Your task to perform on an android device: turn off javascript in the chrome app Image 0: 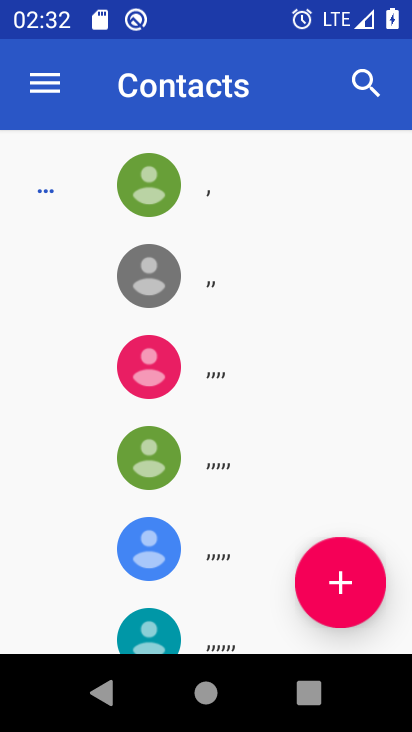
Step 0: press home button
Your task to perform on an android device: turn off javascript in the chrome app Image 1: 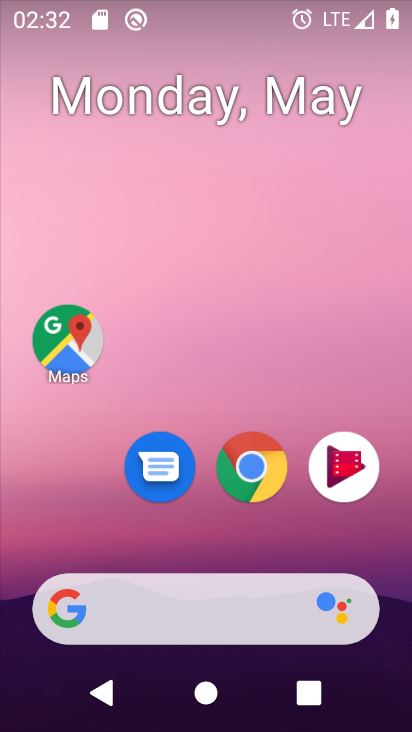
Step 1: drag from (184, 485) to (221, 216)
Your task to perform on an android device: turn off javascript in the chrome app Image 2: 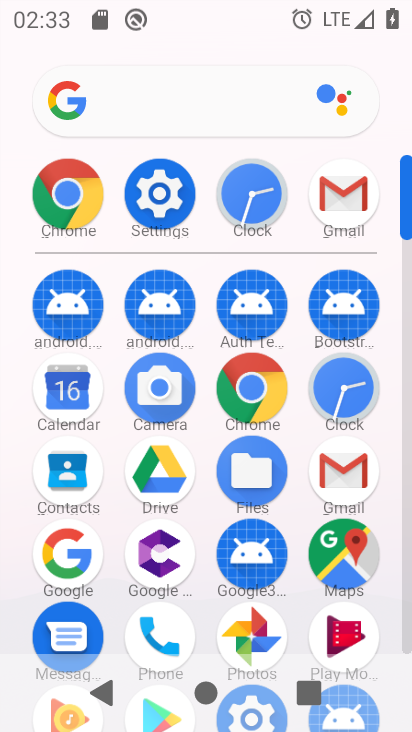
Step 2: click (74, 182)
Your task to perform on an android device: turn off javascript in the chrome app Image 3: 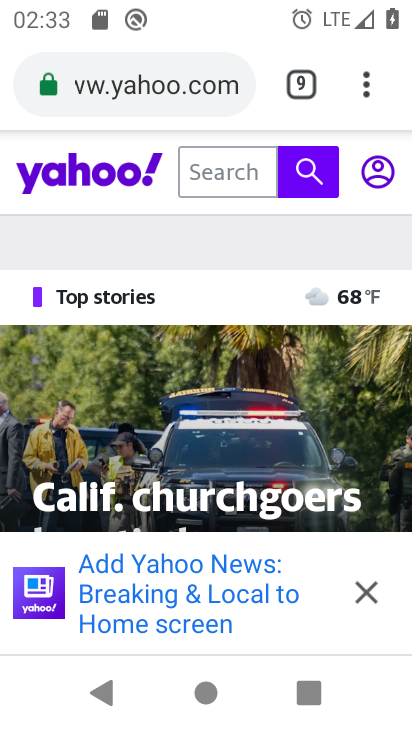
Step 3: click (356, 79)
Your task to perform on an android device: turn off javascript in the chrome app Image 4: 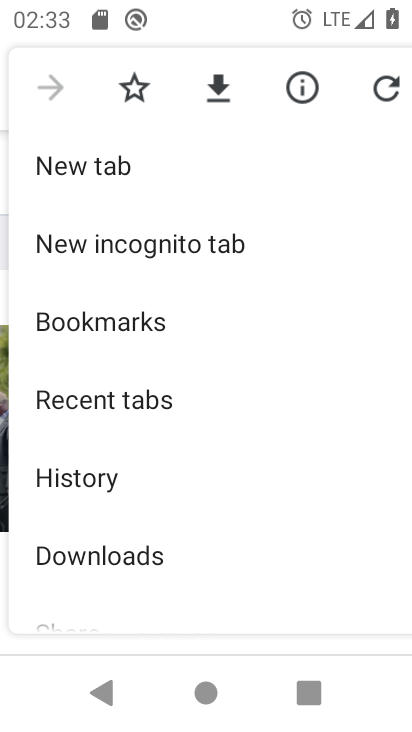
Step 4: drag from (197, 506) to (264, 237)
Your task to perform on an android device: turn off javascript in the chrome app Image 5: 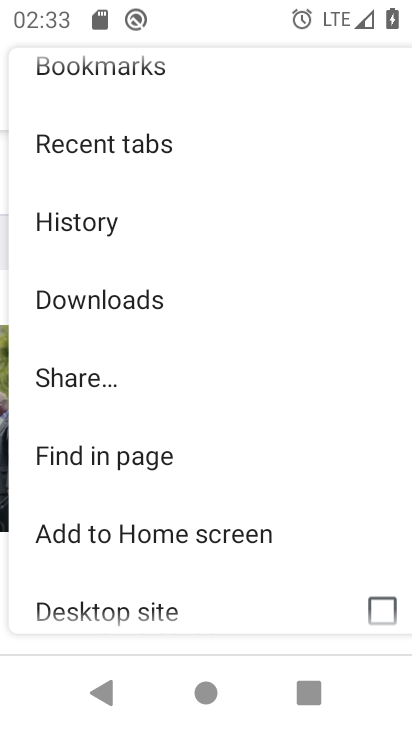
Step 5: drag from (177, 517) to (248, 250)
Your task to perform on an android device: turn off javascript in the chrome app Image 6: 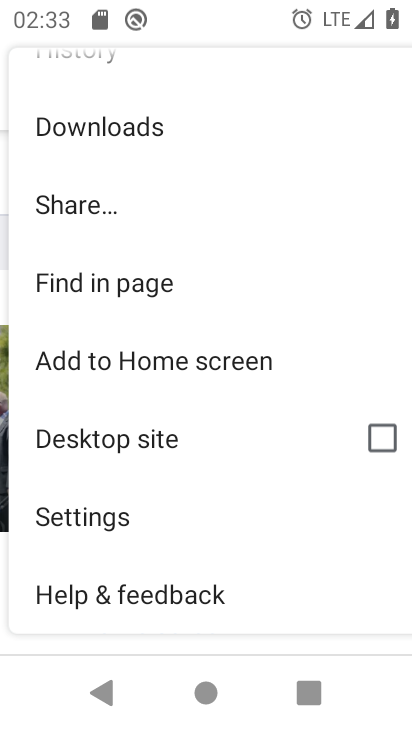
Step 6: click (90, 519)
Your task to perform on an android device: turn off javascript in the chrome app Image 7: 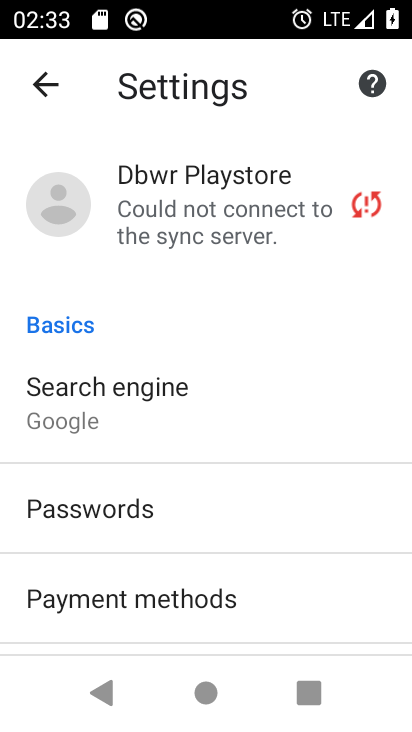
Step 7: drag from (162, 584) to (286, 233)
Your task to perform on an android device: turn off javascript in the chrome app Image 8: 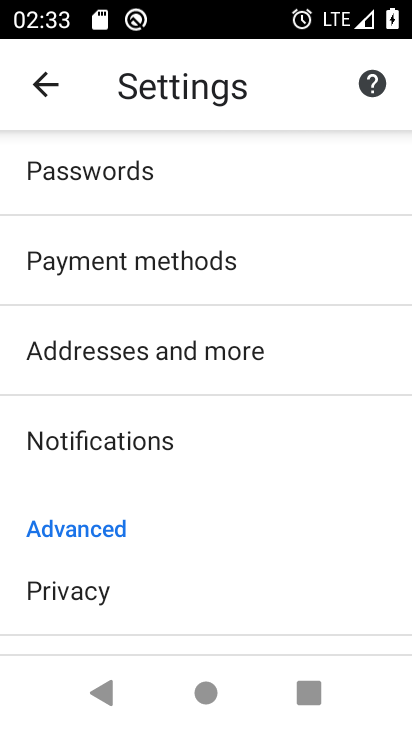
Step 8: drag from (204, 538) to (282, 220)
Your task to perform on an android device: turn off javascript in the chrome app Image 9: 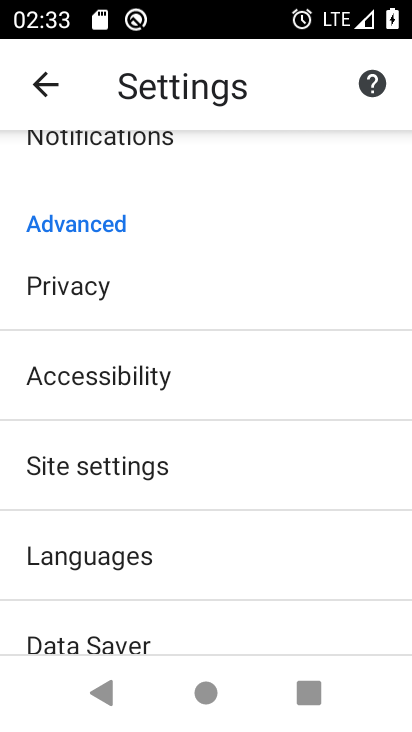
Step 9: drag from (180, 579) to (250, 319)
Your task to perform on an android device: turn off javascript in the chrome app Image 10: 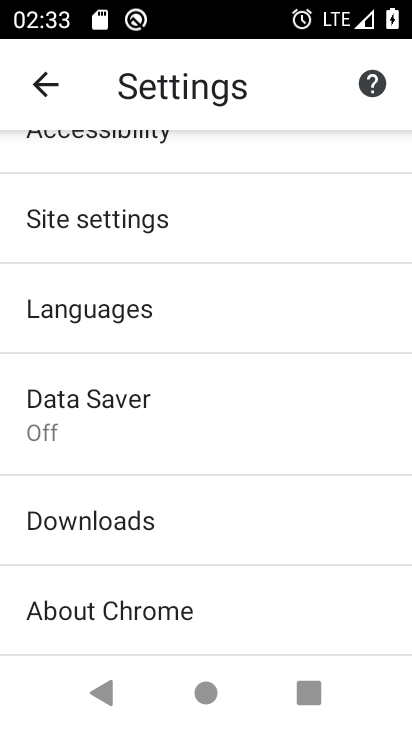
Step 10: click (117, 213)
Your task to perform on an android device: turn off javascript in the chrome app Image 11: 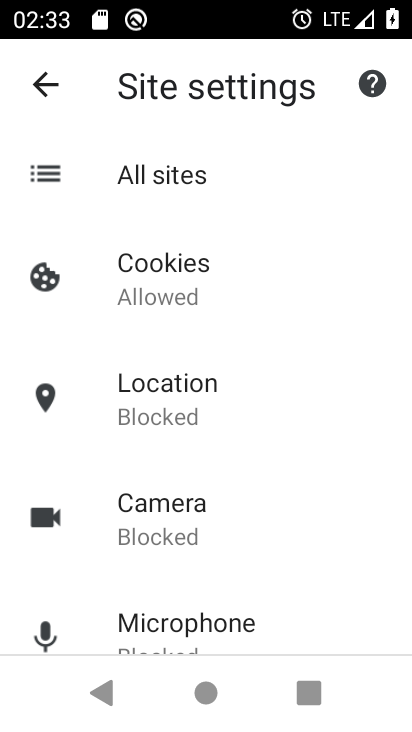
Step 11: drag from (239, 573) to (306, 250)
Your task to perform on an android device: turn off javascript in the chrome app Image 12: 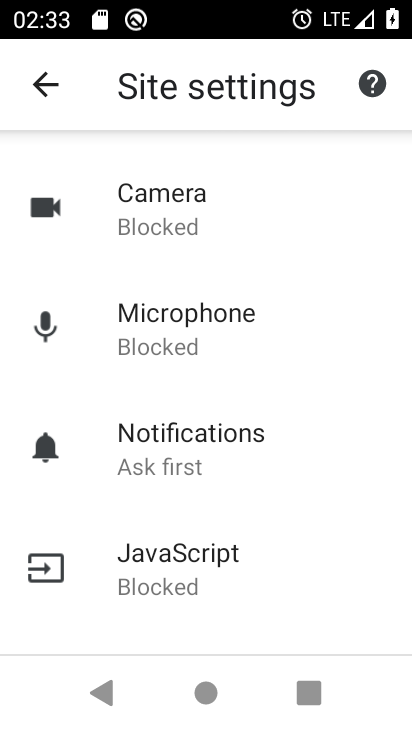
Step 12: drag from (183, 565) to (213, 396)
Your task to perform on an android device: turn off javascript in the chrome app Image 13: 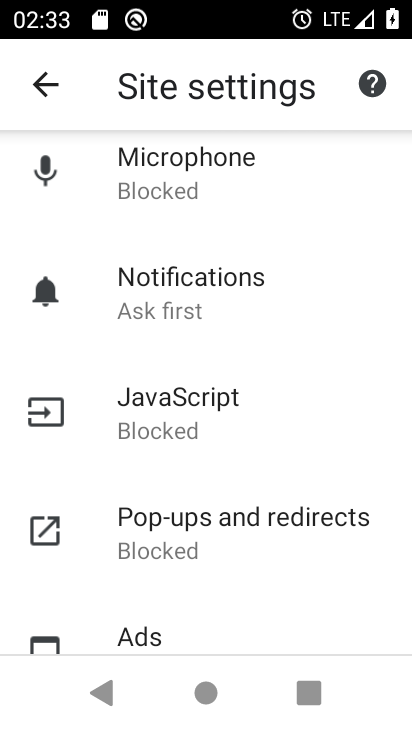
Step 13: click (168, 411)
Your task to perform on an android device: turn off javascript in the chrome app Image 14: 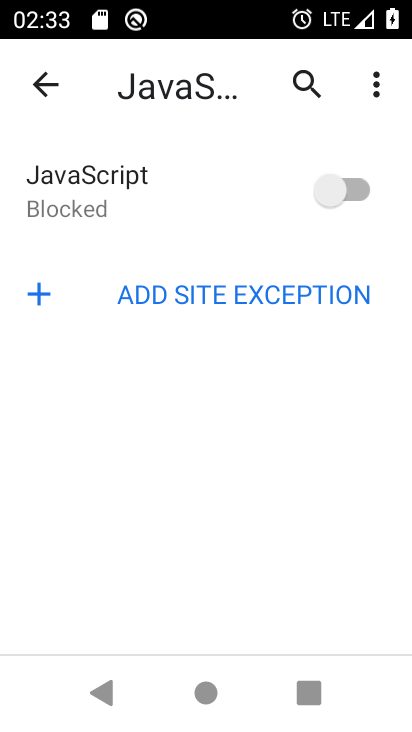
Step 14: click (335, 174)
Your task to perform on an android device: turn off javascript in the chrome app Image 15: 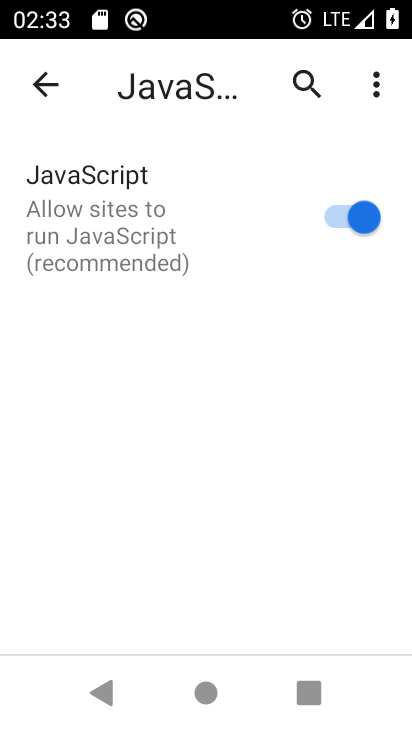
Step 15: click (341, 205)
Your task to perform on an android device: turn off javascript in the chrome app Image 16: 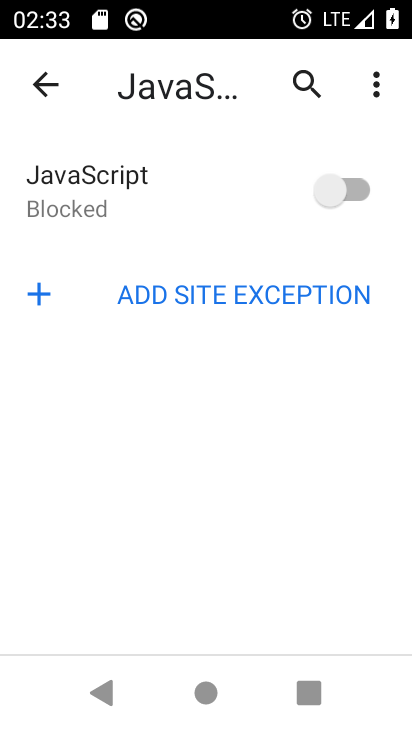
Step 16: task complete